Your task to perform on an android device: Go to calendar. Show me events next week Image 0: 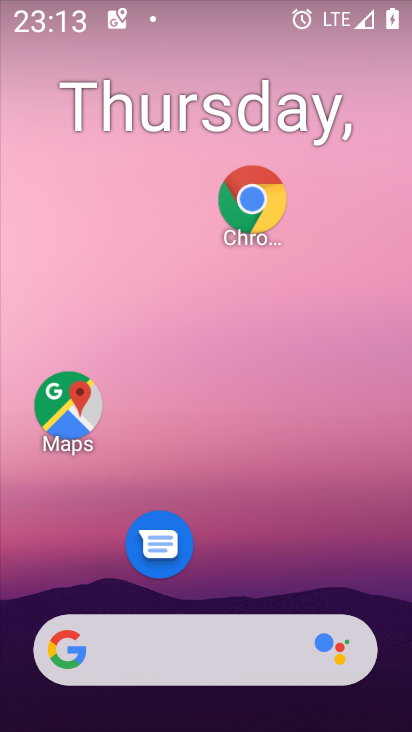
Step 0: click (313, 113)
Your task to perform on an android device: Go to calendar. Show me events next week Image 1: 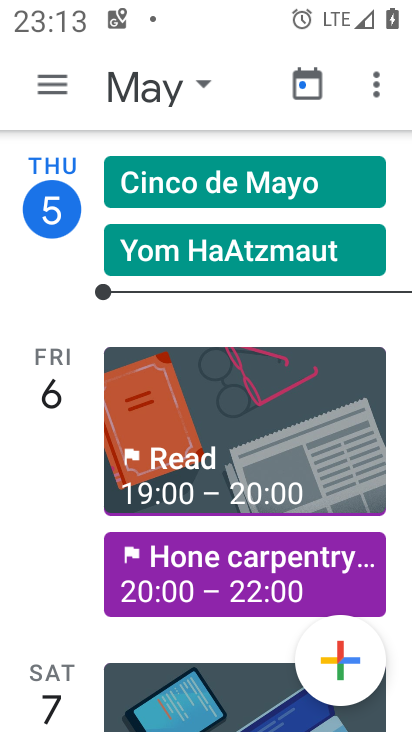
Step 1: click (188, 89)
Your task to perform on an android device: Go to calendar. Show me events next week Image 2: 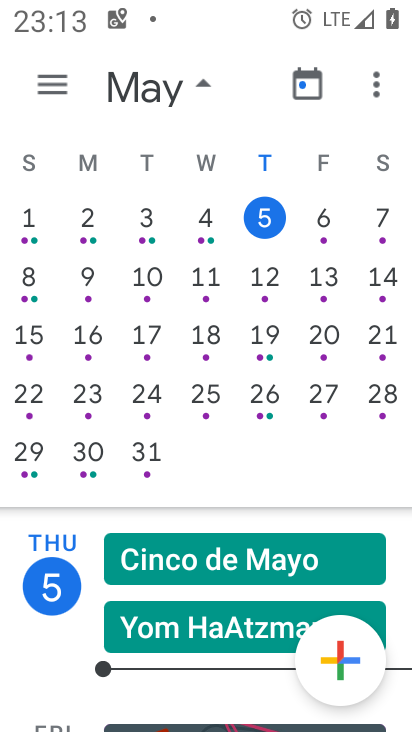
Step 2: drag from (326, 291) to (83, 314)
Your task to perform on an android device: Go to calendar. Show me events next week Image 3: 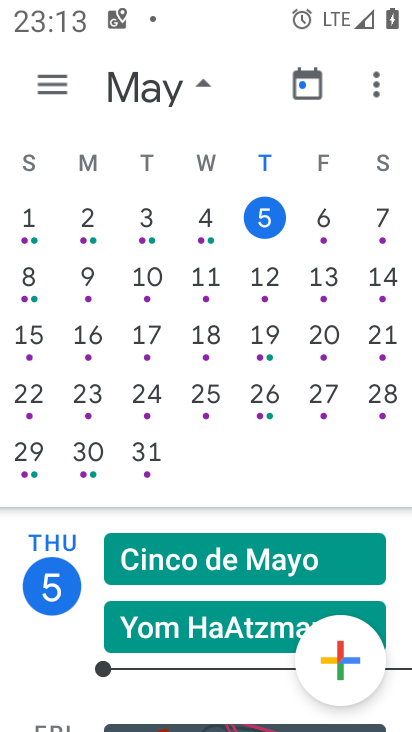
Step 3: drag from (337, 339) to (120, 482)
Your task to perform on an android device: Go to calendar. Show me events next week Image 4: 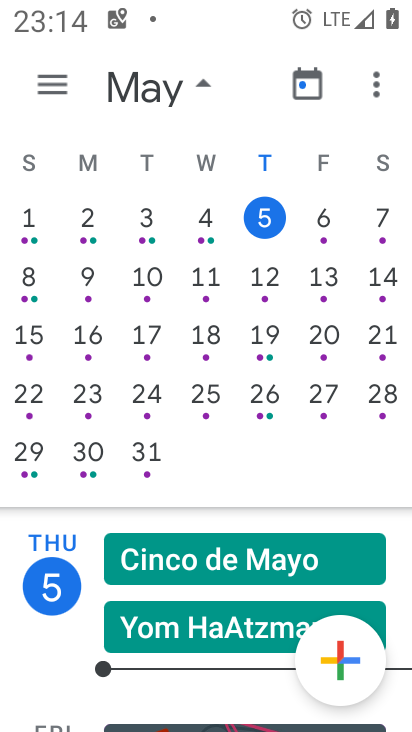
Step 4: drag from (387, 370) to (51, 407)
Your task to perform on an android device: Go to calendar. Show me events next week Image 5: 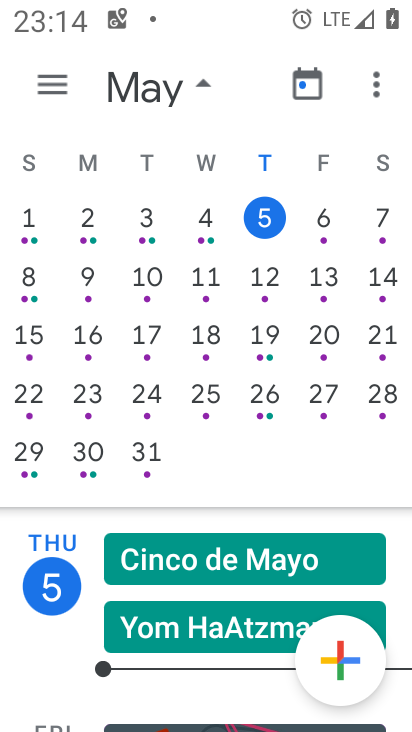
Step 5: drag from (380, 453) to (67, 433)
Your task to perform on an android device: Go to calendar. Show me events next week Image 6: 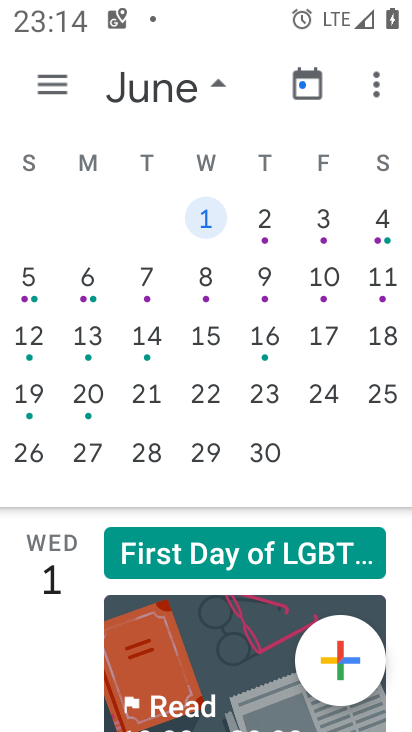
Step 6: click (202, 289)
Your task to perform on an android device: Go to calendar. Show me events next week Image 7: 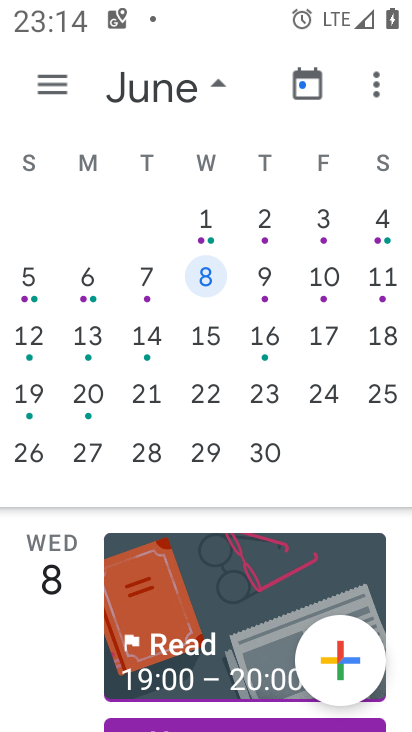
Step 7: task complete